Your task to perform on an android device: create a new album in the google photos Image 0: 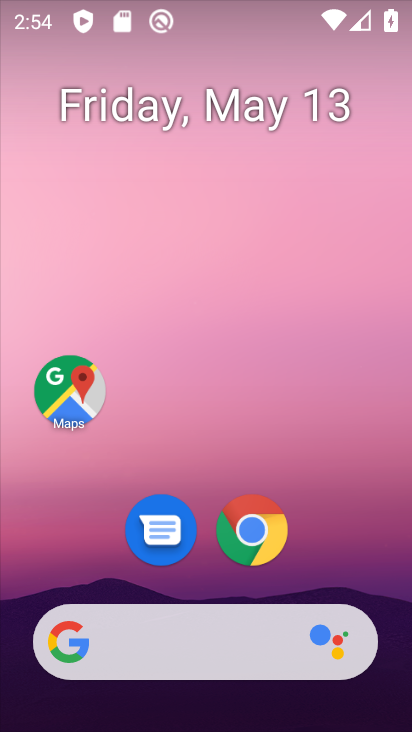
Step 0: drag from (326, 511) to (312, 31)
Your task to perform on an android device: create a new album in the google photos Image 1: 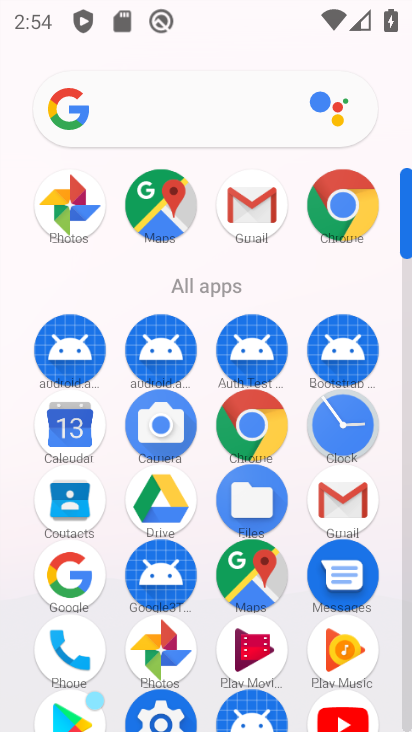
Step 1: click (173, 636)
Your task to perform on an android device: create a new album in the google photos Image 2: 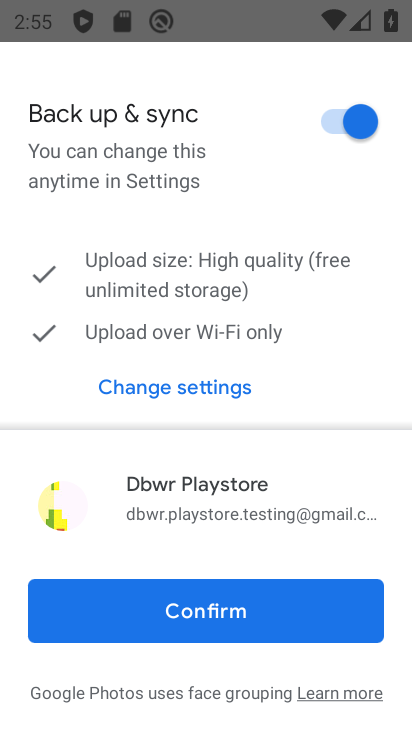
Step 2: click (213, 605)
Your task to perform on an android device: create a new album in the google photos Image 3: 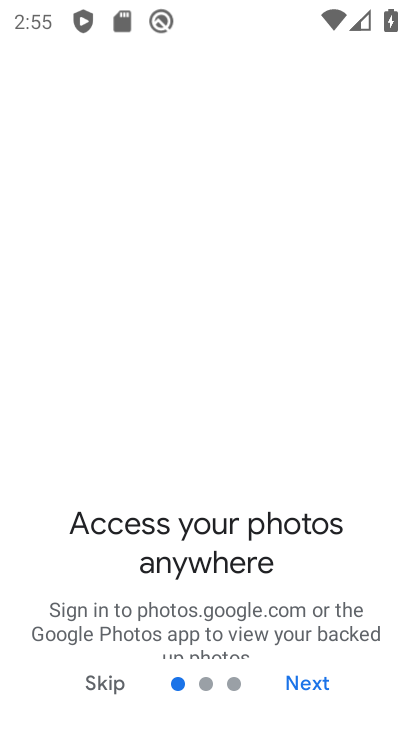
Step 3: click (297, 687)
Your task to perform on an android device: create a new album in the google photos Image 4: 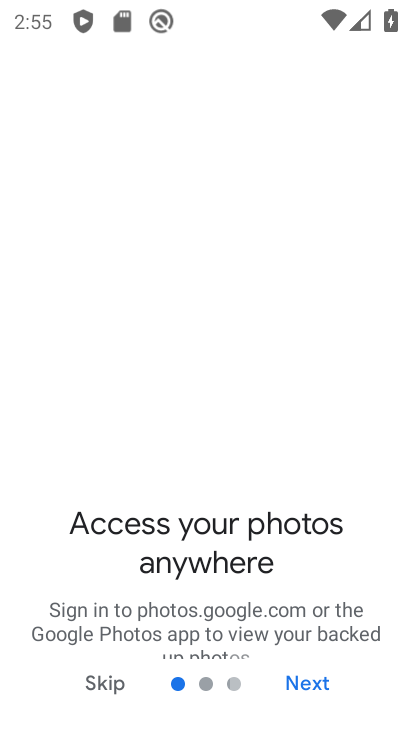
Step 4: click (296, 674)
Your task to perform on an android device: create a new album in the google photos Image 5: 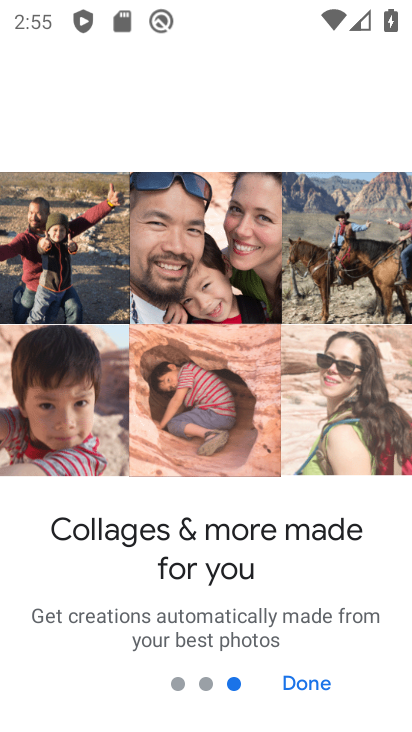
Step 5: click (292, 670)
Your task to perform on an android device: create a new album in the google photos Image 6: 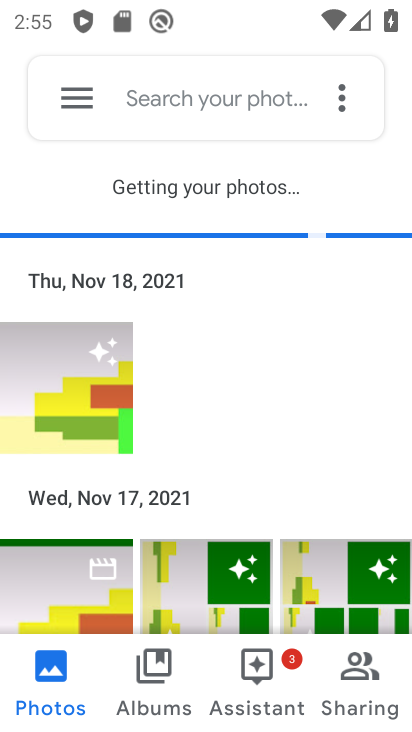
Step 6: click (366, 715)
Your task to perform on an android device: create a new album in the google photos Image 7: 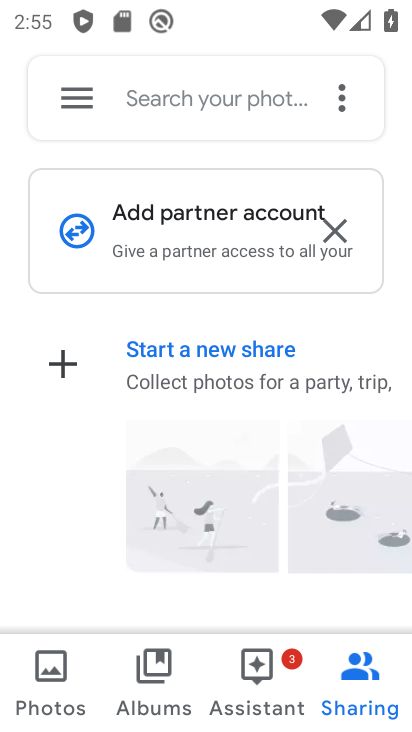
Step 7: click (147, 688)
Your task to perform on an android device: create a new album in the google photos Image 8: 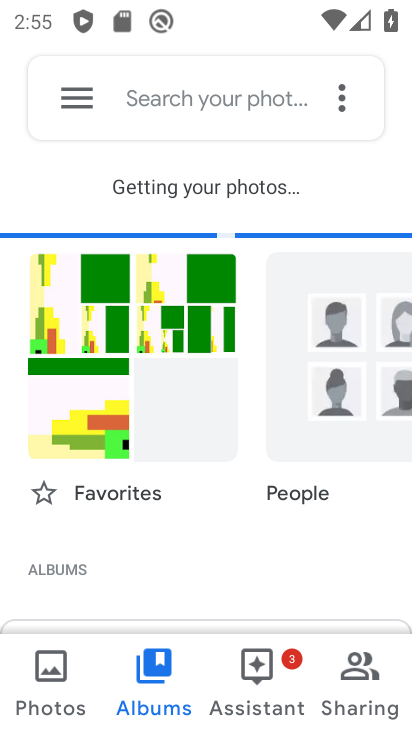
Step 8: click (348, 91)
Your task to perform on an android device: create a new album in the google photos Image 9: 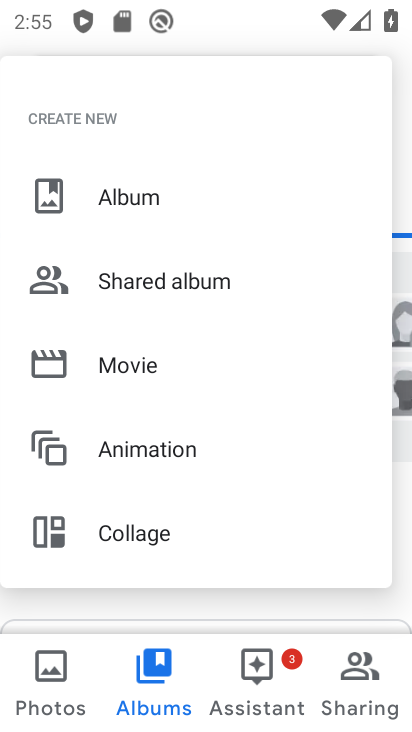
Step 9: click (143, 190)
Your task to perform on an android device: create a new album in the google photos Image 10: 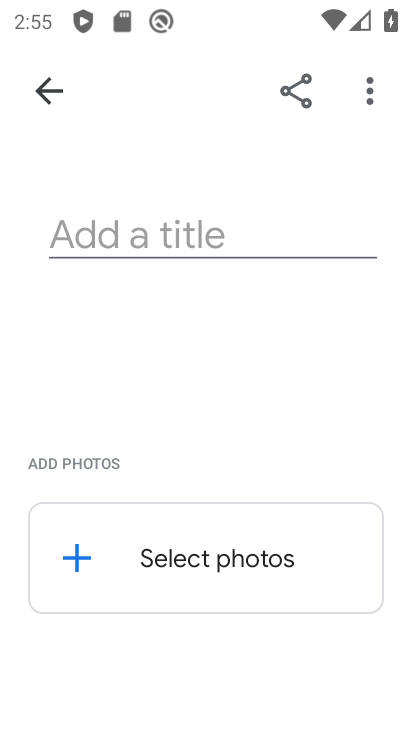
Step 10: click (201, 240)
Your task to perform on an android device: create a new album in the google photos Image 11: 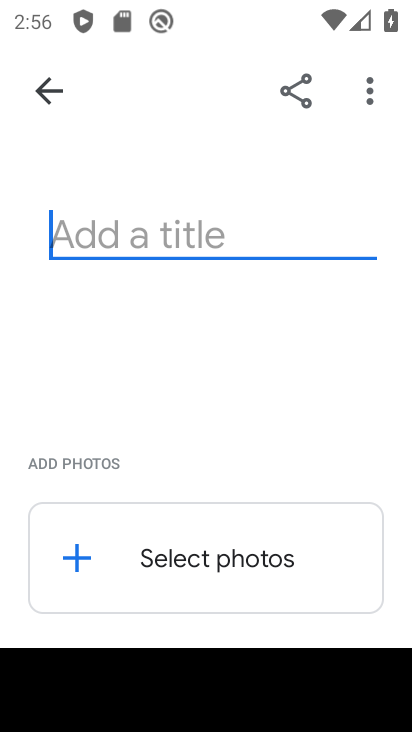
Step 11: type "ghjhg"
Your task to perform on an android device: create a new album in the google photos Image 12: 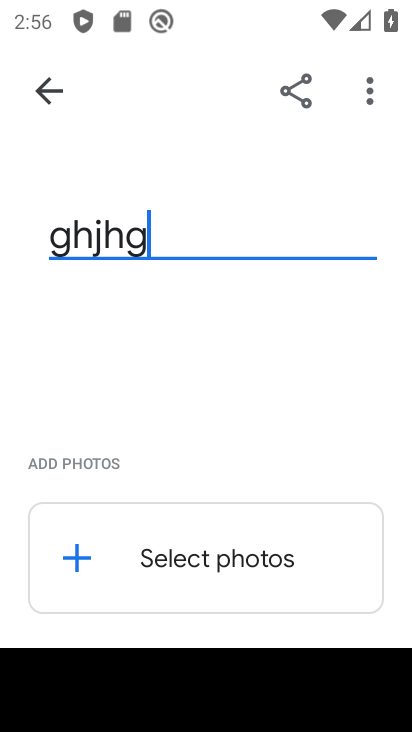
Step 12: type ""
Your task to perform on an android device: create a new album in the google photos Image 13: 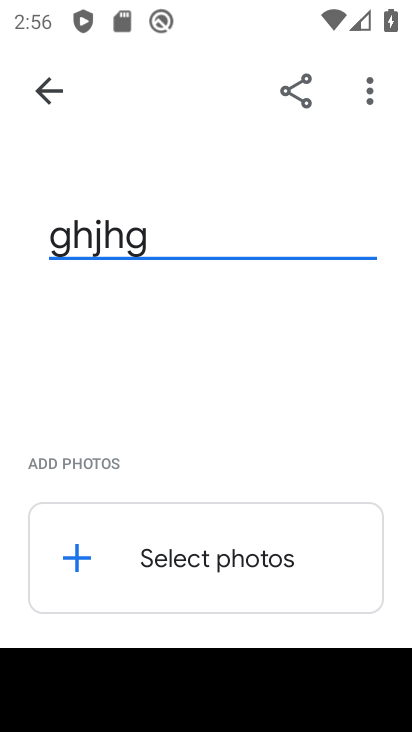
Step 13: press enter
Your task to perform on an android device: create a new album in the google photos Image 14: 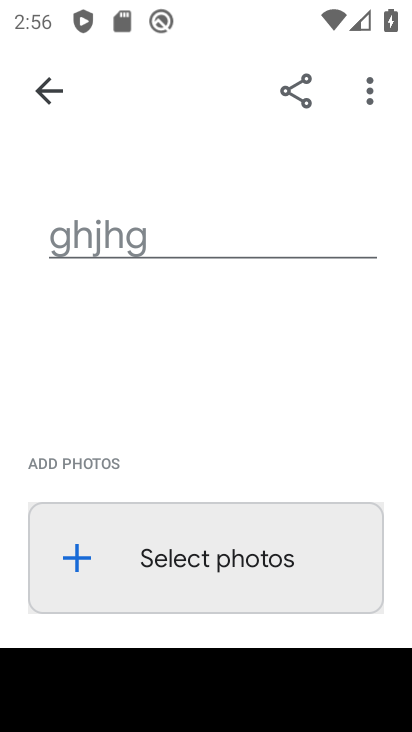
Step 14: press enter
Your task to perform on an android device: create a new album in the google photos Image 15: 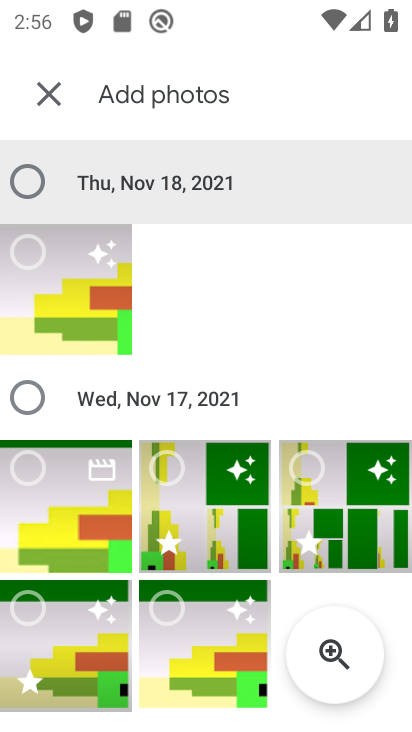
Step 15: click (24, 249)
Your task to perform on an android device: create a new album in the google photos Image 16: 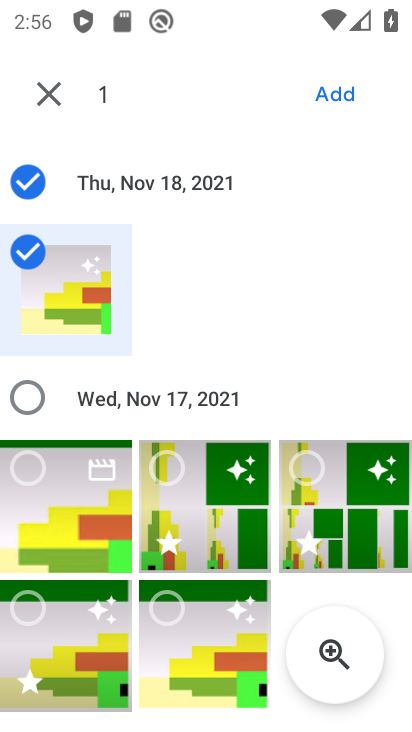
Step 16: press enter
Your task to perform on an android device: create a new album in the google photos Image 17: 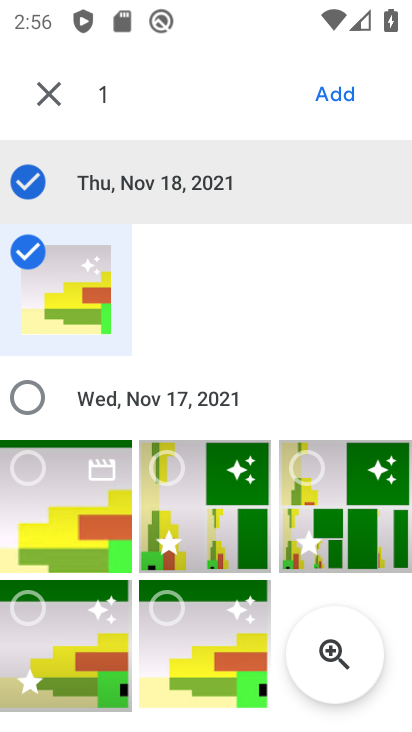
Step 17: click (329, 86)
Your task to perform on an android device: create a new album in the google photos Image 18: 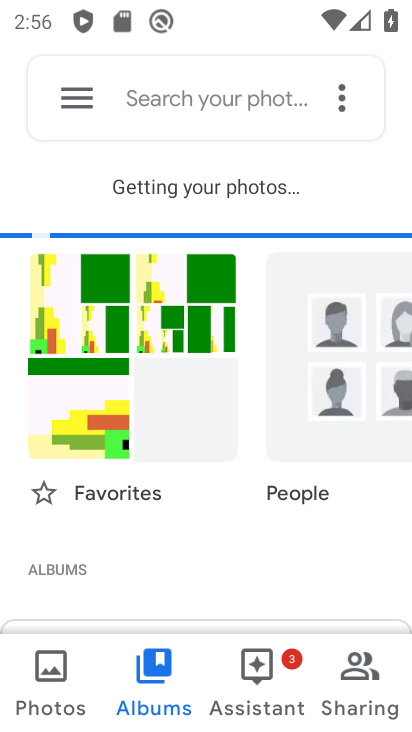
Step 18: task complete